Your task to perform on an android device: open app "Paramount+ | Peak Streaming" (install if not already installed) and enter user name: "fostered@yahoo.com" and password: "strong" Image 0: 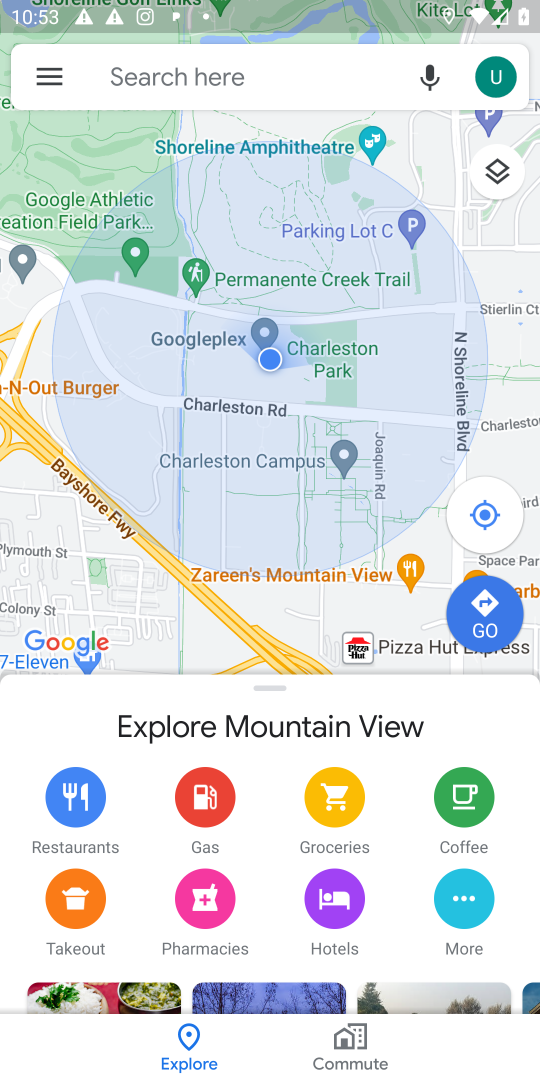
Step 0: press home button
Your task to perform on an android device: open app "Paramount+ | Peak Streaming" (install if not already installed) and enter user name: "fostered@yahoo.com" and password: "strong" Image 1: 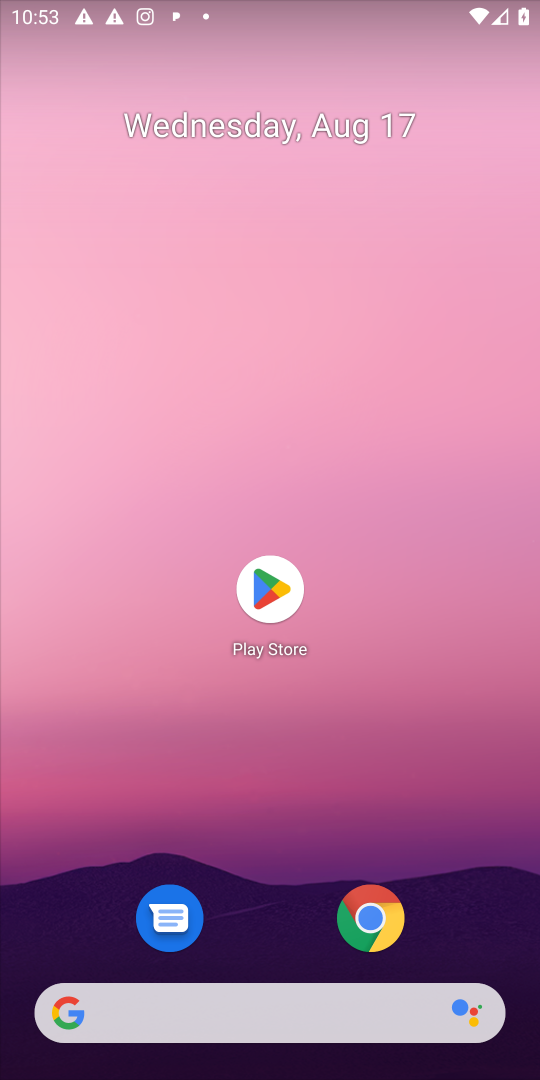
Step 1: click (272, 600)
Your task to perform on an android device: open app "Paramount+ | Peak Streaming" (install if not already installed) and enter user name: "fostered@yahoo.com" and password: "strong" Image 2: 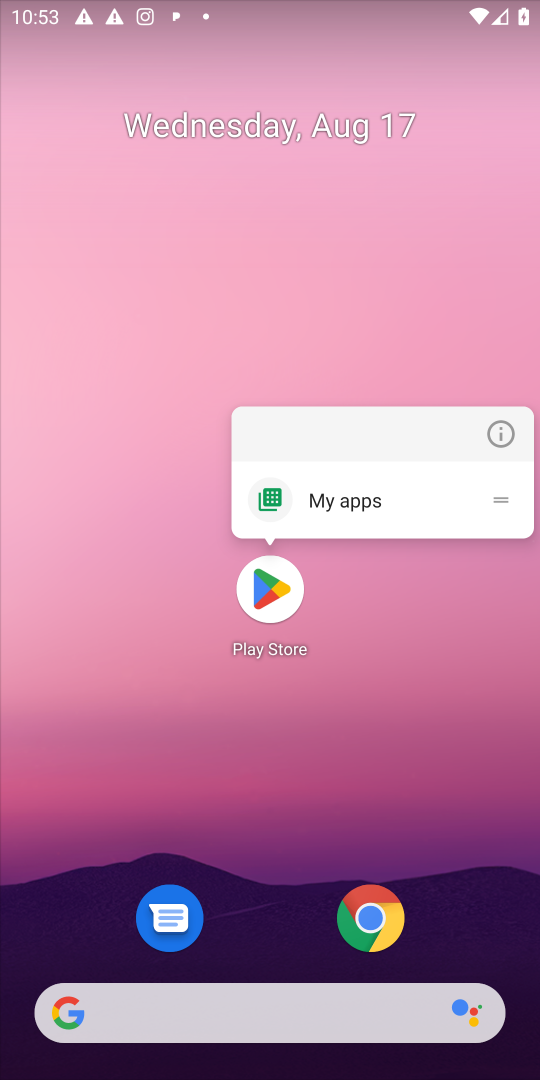
Step 2: click (272, 600)
Your task to perform on an android device: open app "Paramount+ | Peak Streaming" (install if not already installed) and enter user name: "fostered@yahoo.com" and password: "strong" Image 3: 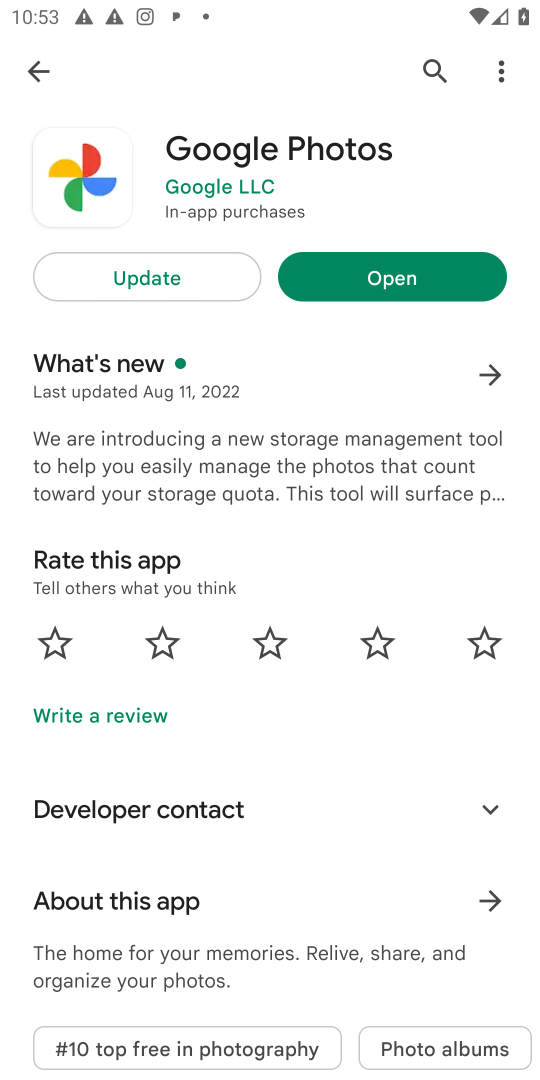
Step 3: click (433, 73)
Your task to perform on an android device: open app "Paramount+ | Peak Streaming" (install if not already installed) and enter user name: "fostered@yahoo.com" and password: "strong" Image 4: 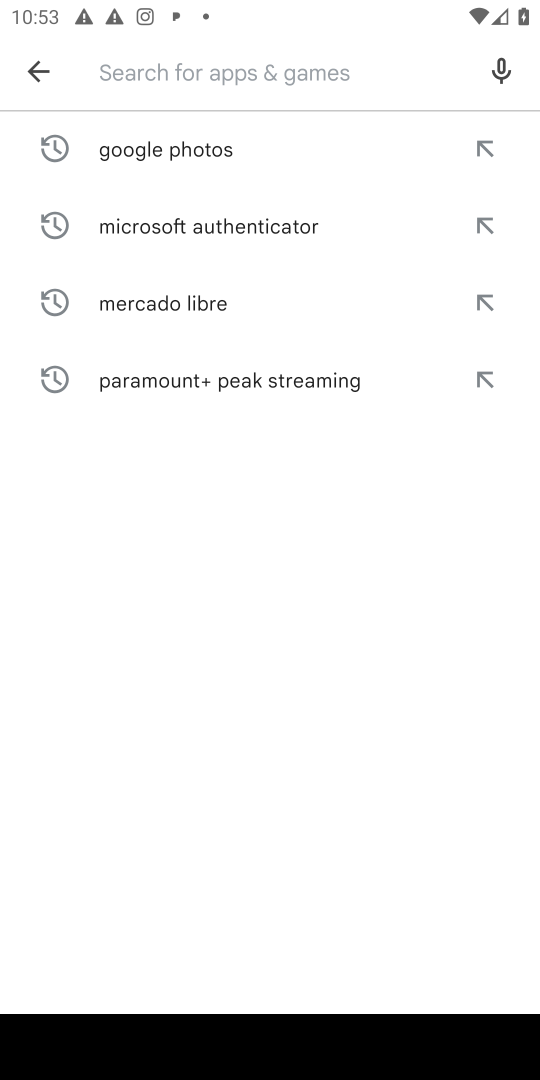
Step 4: type "Paramount+ | Peak Streaming"
Your task to perform on an android device: open app "Paramount+ | Peak Streaming" (install if not already installed) and enter user name: "fostered@yahoo.com" and password: "strong" Image 5: 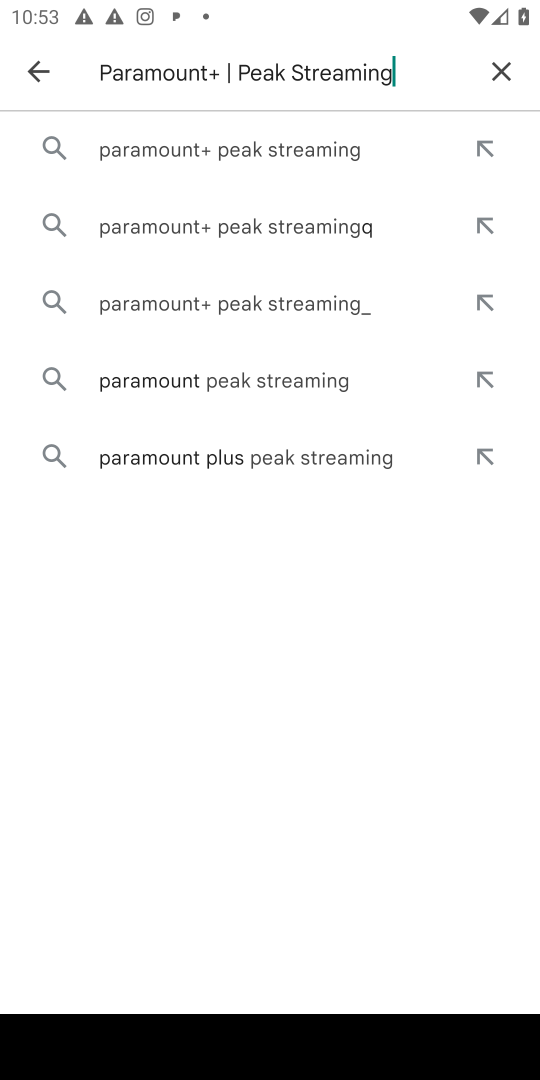
Step 5: click (236, 149)
Your task to perform on an android device: open app "Paramount+ | Peak Streaming" (install if not already installed) and enter user name: "fostered@yahoo.com" and password: "strong" Image 6: 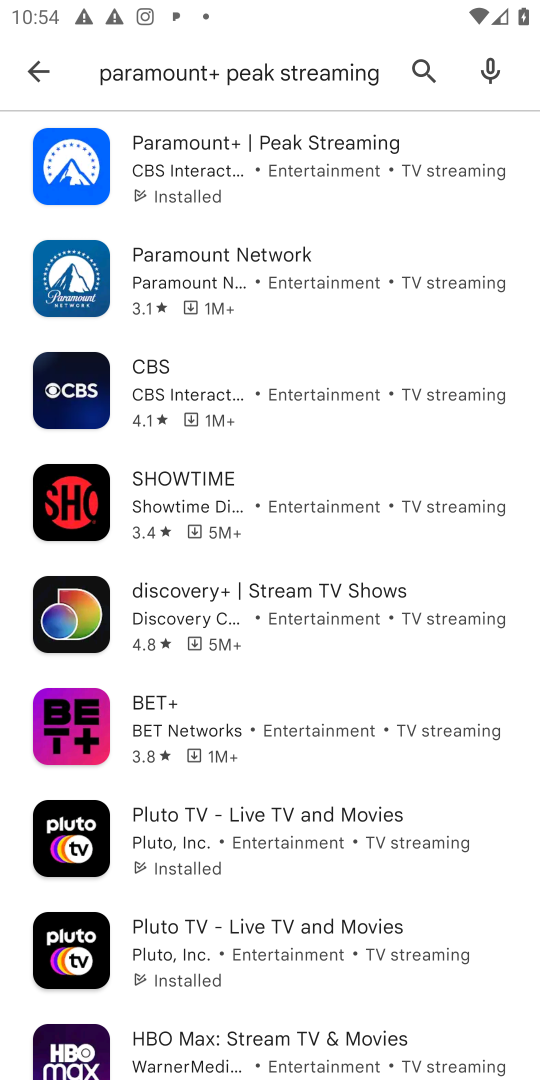
Step 6: click (288, 176)
Your task to perform on an android device: open app "Paramount+ | Peak Streaming" (install if not already installed) and enter user name: "fostered@yahoo.com" and password: "strong" Image 7: 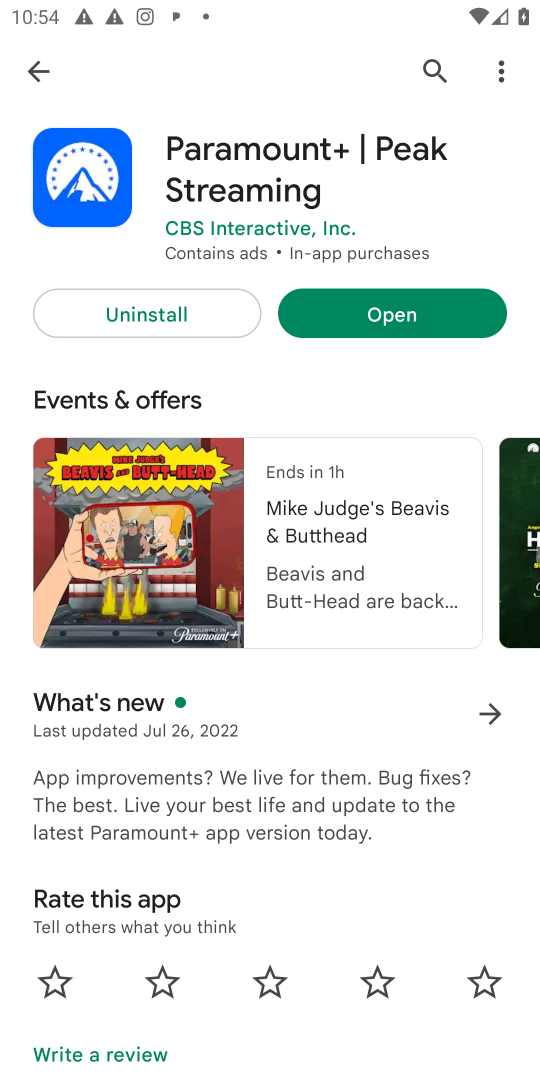
Step 7: click (365, 329)
Your task to perform on an android device: open app "Paramount+ | Peak Streaming" (install if not already installed) and enter user name: "fostered@yahoo.com" and password: "strong" Image 8: 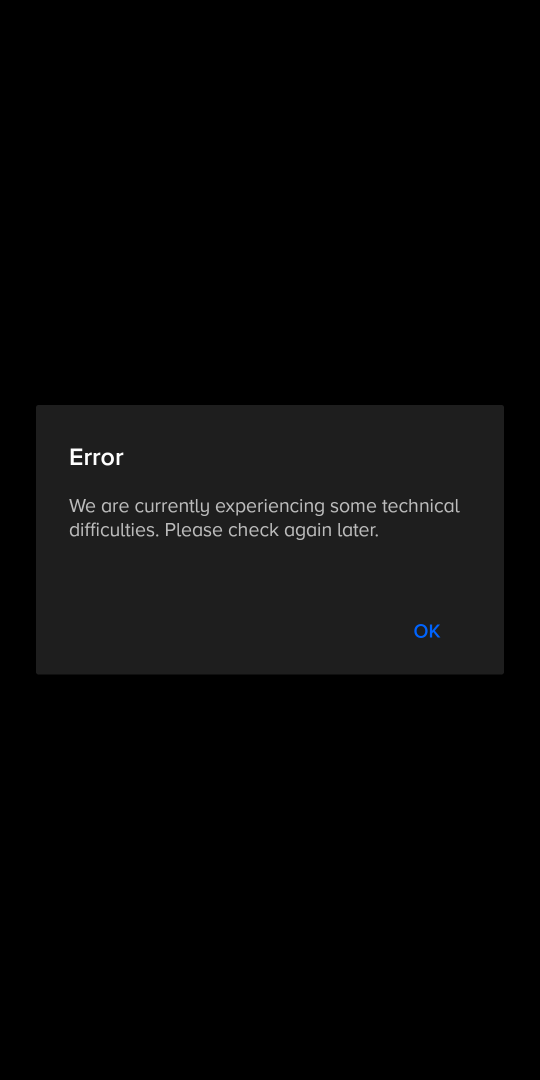
Step 8: task complete